Your task to perform on an android device: Check the news Image 0: 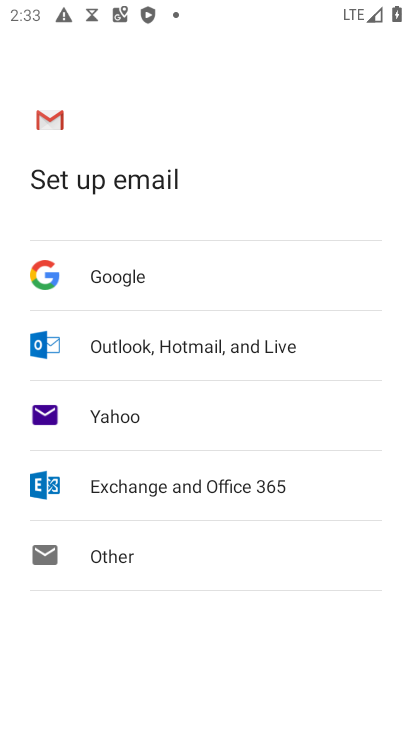
Step 0: press back button
Your task to perform on an android device: Check the news Image 1: 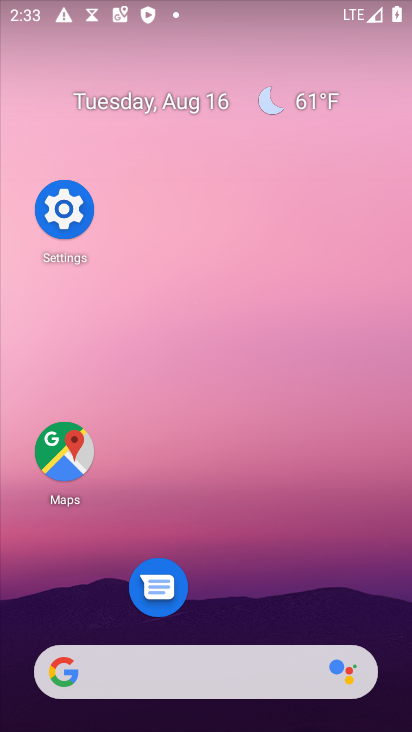
Step 1: click (226, 678)
Your task to perform on an android device: Check the news Image 2: 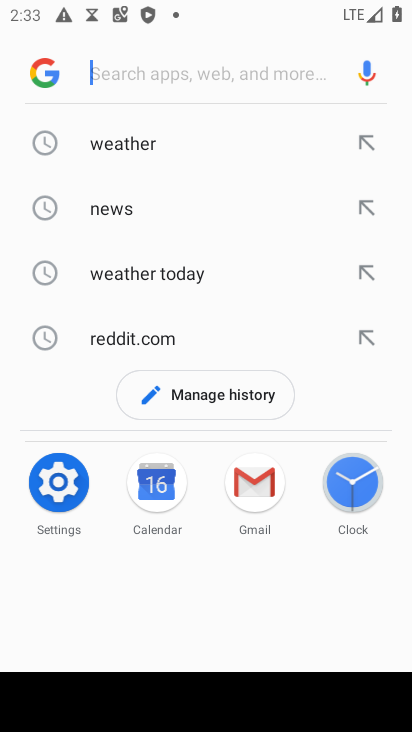
Step 2: click (105, 201)
Your task to perform on an android device: Check the news Image 3: 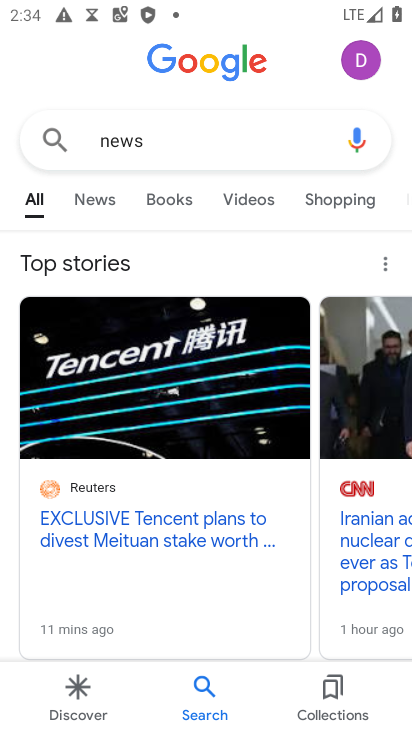
Step 3: task complete